Your task to perform on an android device: Open location settings Image 0: 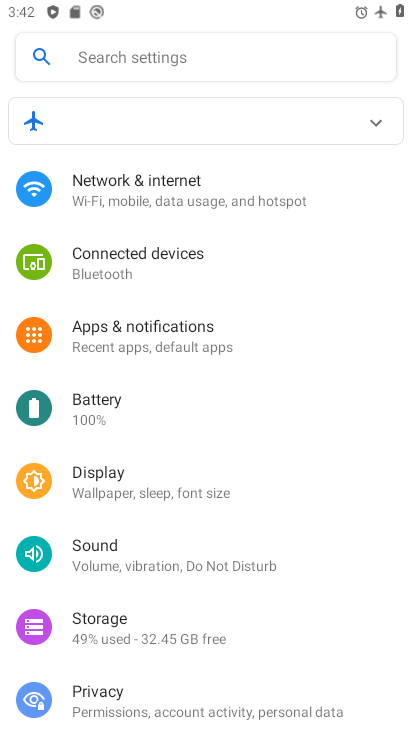
Step 0: drag from (186, 515) to (229, 108)
Your task to perform on an android device: Open location settings Image 1: 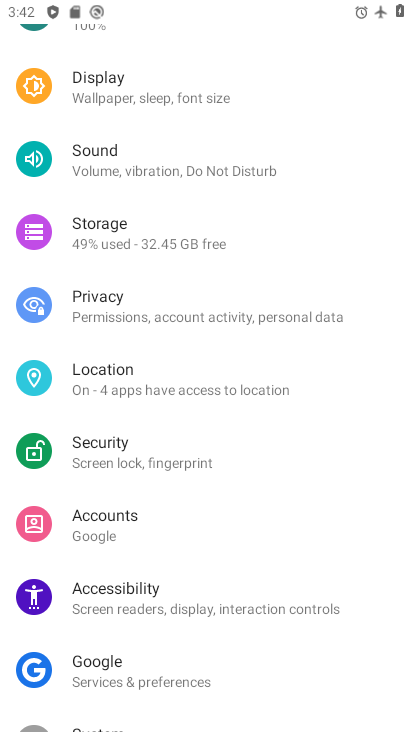
Step 1: click (186, 376)
Your task to perform on an android device: Open location settings Image 2: 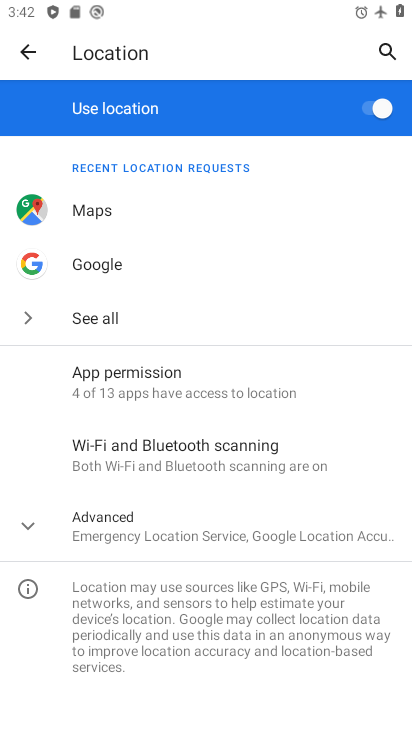
Step 2: task complete